Your task to perform on an android device: Open sound settings Image 0: 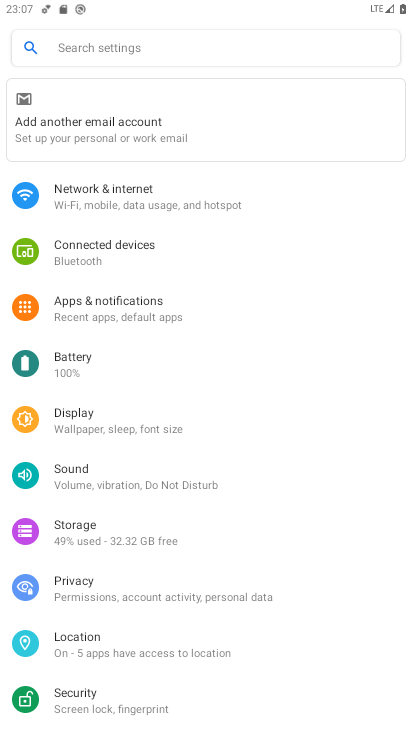
Step 0: press home button
Your task to perform on an android device: Open sound settings Image 1: 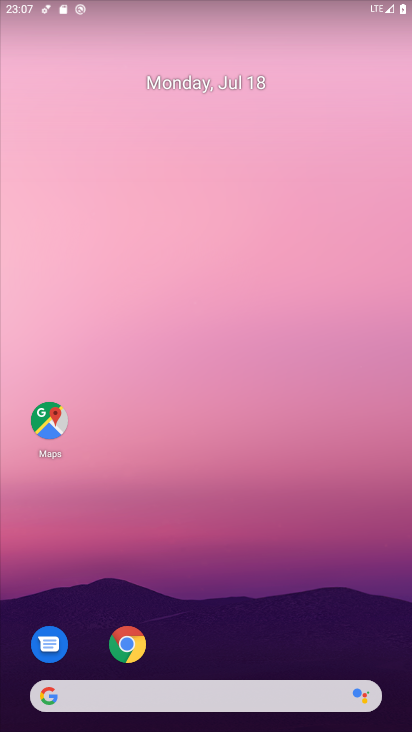
Step 1: drag from (323, 581) to (313, 144)
Your task to perform on an android device: Open sound settings Image 2: 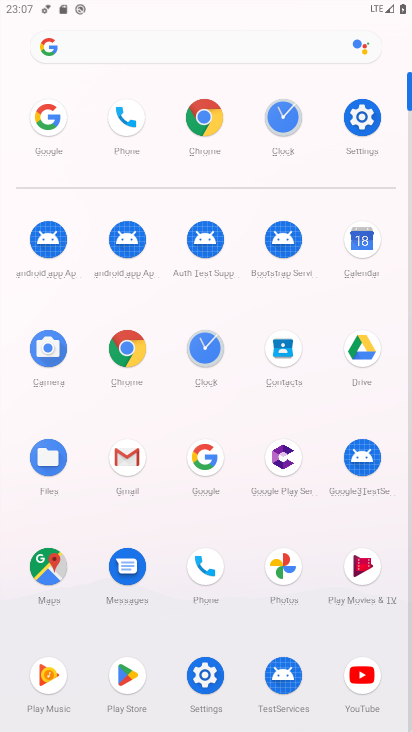
Step 2: click (363, 133)
Your task to perform on an android device: Open sound settings Image 3: 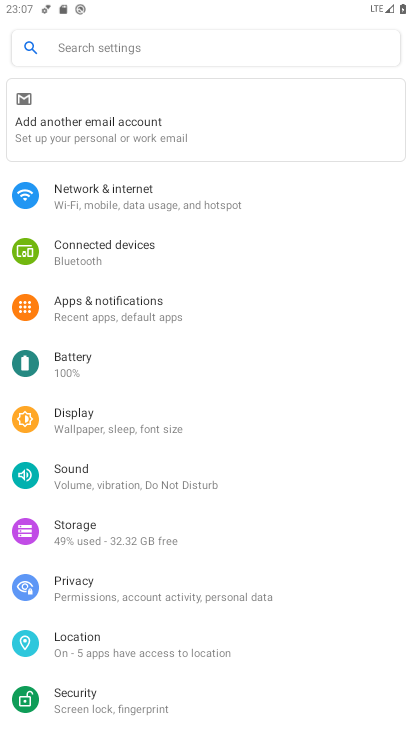
Step 3: drag from (337, 578) to (339, 482)
Your task to perform on an android device: Open sound settings Image 4: 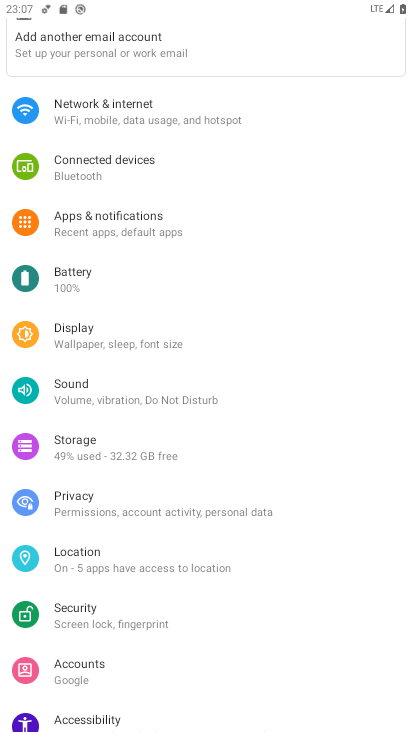
Step 4: drag from (335, 583) to (341, 482)
Your task to perform on an android device: Open sound settings Image 5: 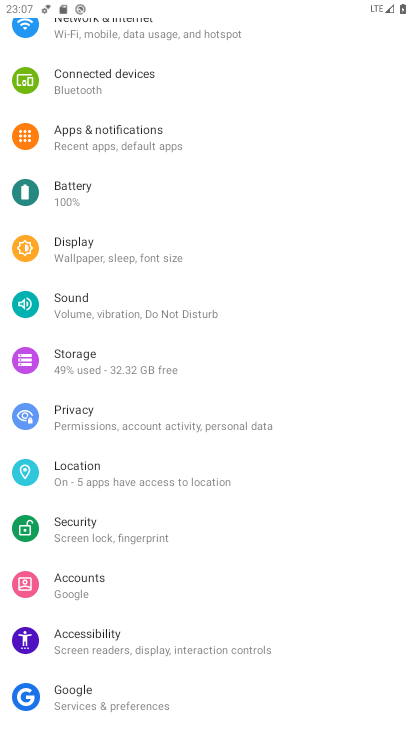
Step 5: drag from (333, 576) to (341, 468)
Your task to perform on an android device: Open sound settings Image 6: 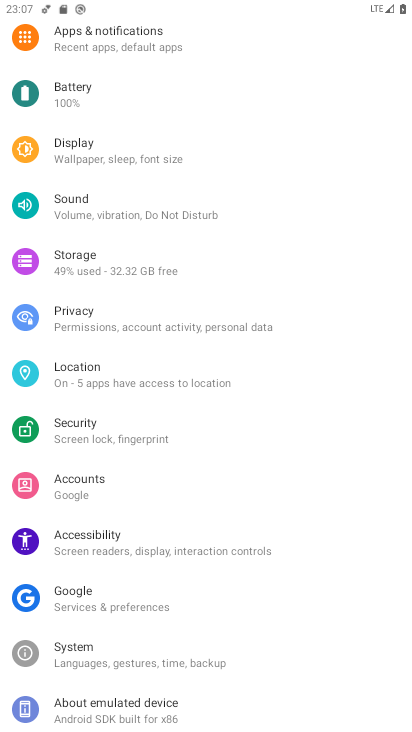
Step 6: drag from (347, 549) to (338, 441)
Your task to perform on an android device: Open sound settings Image 7: 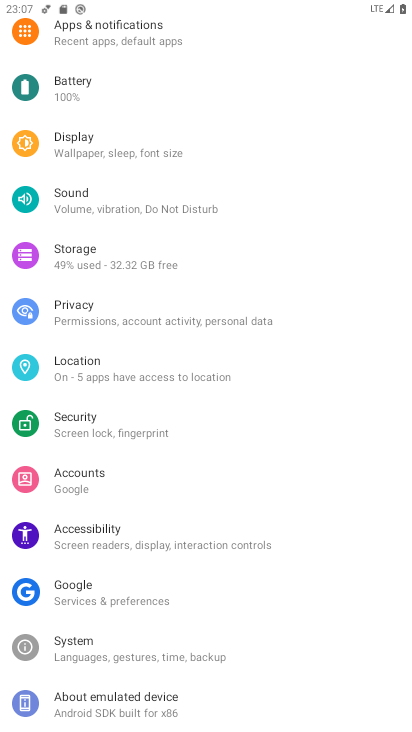
Step 7: drag from (341, 572) to (331, 393)
Your task to perform on an android device: Open sound settings Image 8: 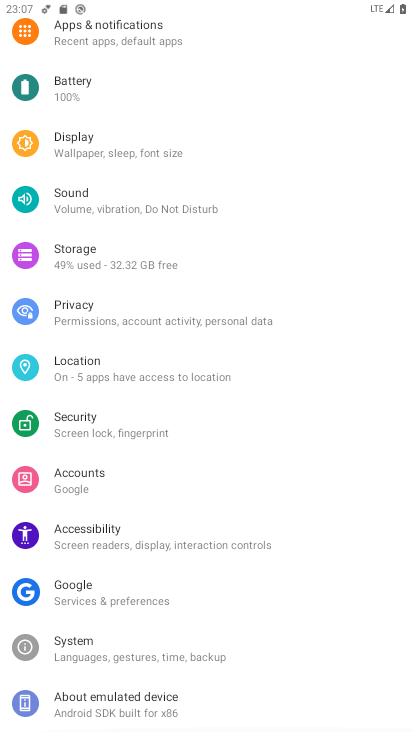
Step 8: drag from (330, 313) to (328, 395)
Your task to perform on an android device: Open sound settings Image 9: 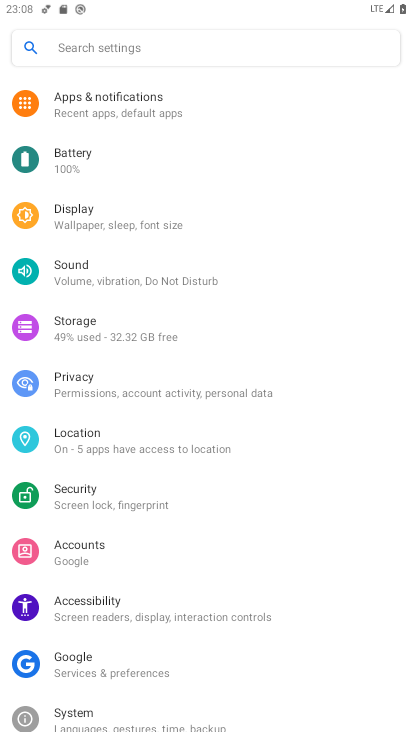
Step 9: drag from (321, 310) to (322, 388)
Your task to perform on an android device: Open sound settings Image 10: 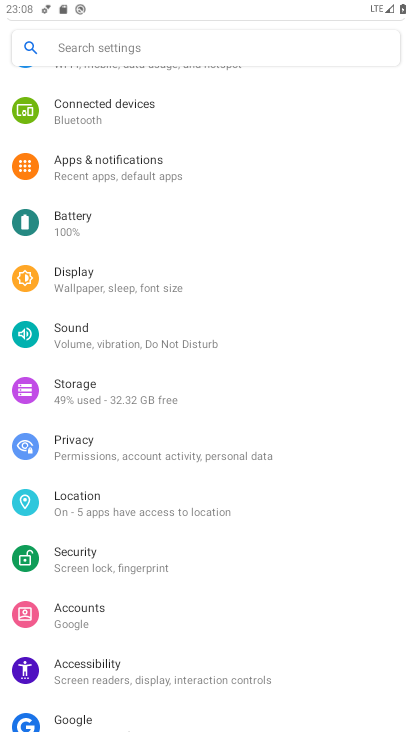
Step 10: drag from (324, 319) to (324, 399)
Your task to perform on an android device: Open sound settings Image 11: 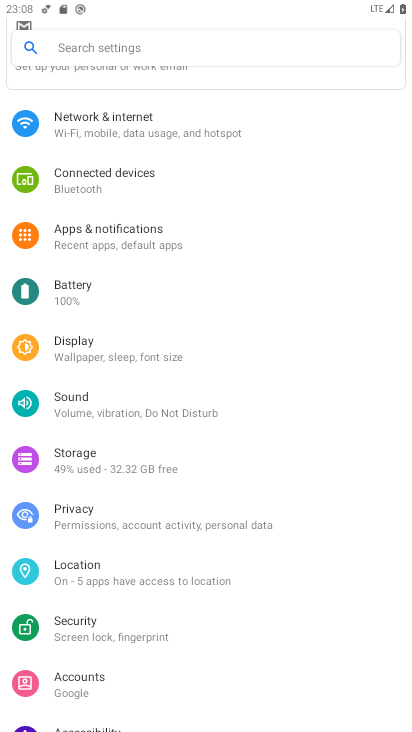
Step 11: drag from (311, 317) to (316, 479)
Your task to perform on an android device: Open sound settings Image 12: 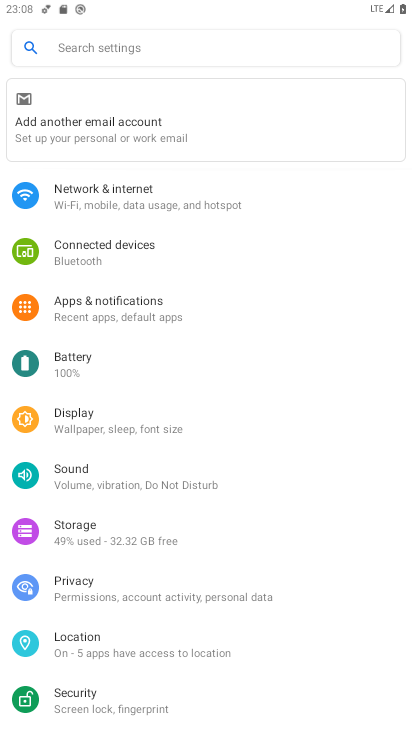
Step 12: click (236, 483)
Your task to perform on an android device: Open sound settings Image 13: 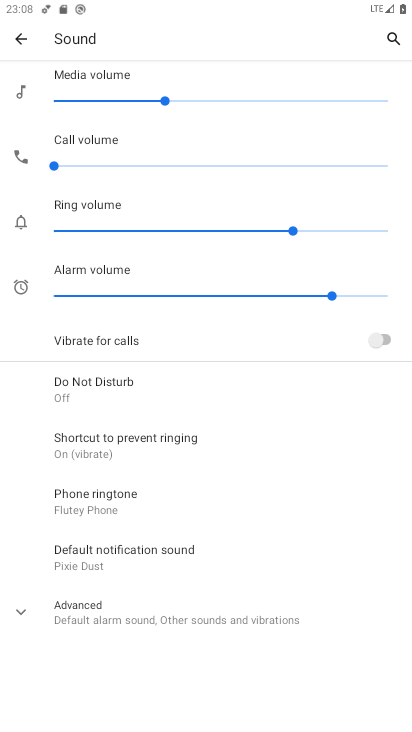
Step 13: task complete